Your task to perform on an android device: Open the phone app and click the voicemail tab. Image 0: 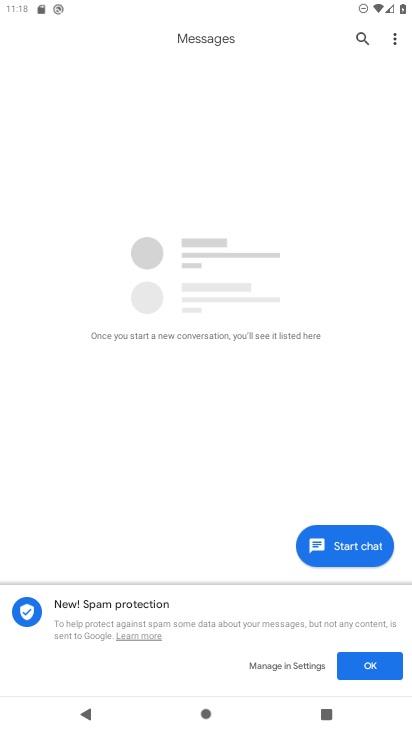
Step 0: press back button
Your task to perform on an android device: Open the phone app and click the voicemail tab. Image 1: 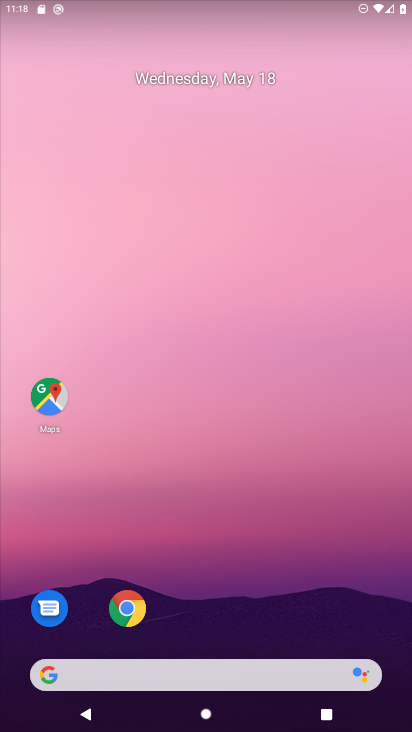
Step 1: drag from (217, 564) to (200, 156)
Your task to perform on an android device: Open the phone app and click the voicemail tab. Image 2: 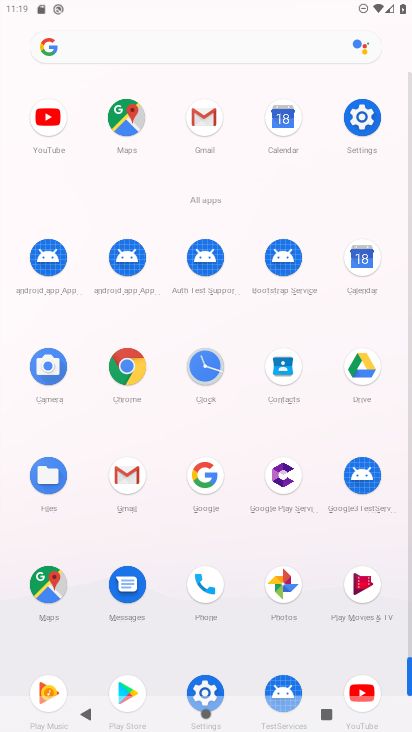
Step 2: drag from (225, 569) to (228, 424)
Your task to perform on an android device: Open the phone app and click the voicemail tab. Image 3: 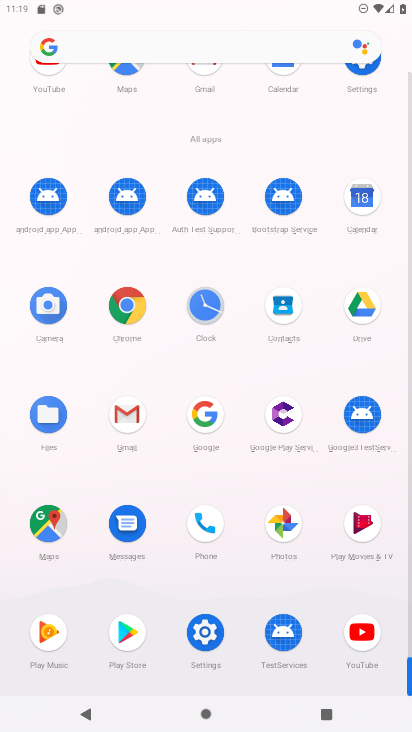
Step 3: click (202, 522)
Your task to perform on an android device: Open the phone app and click the voicemail tab. Image 4: 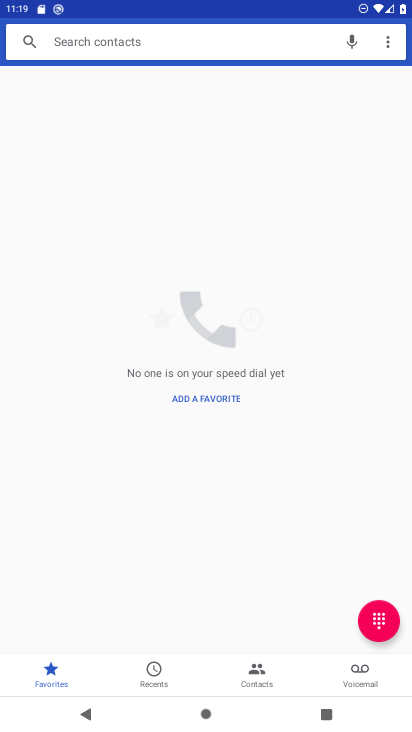
Step 4: click (360, 665)
Your task to perform on an android device: Open the phone app and click the voicemail tab. Image 5: 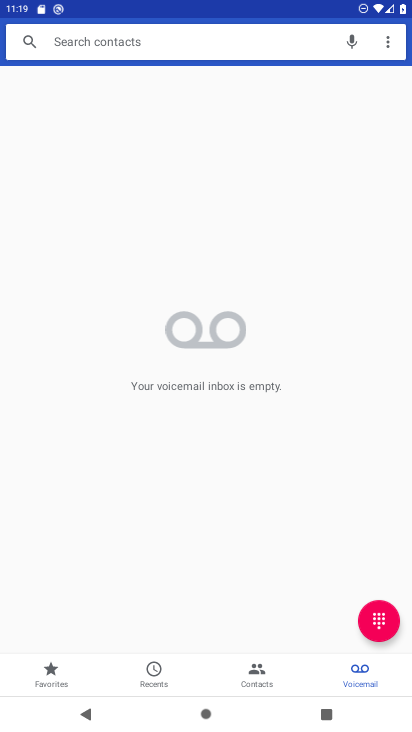
Step 5: task complete